Your task to perform on an android device: open app "The Home Depot" (install if not already installed), go to login, and select forgot password Image 0: 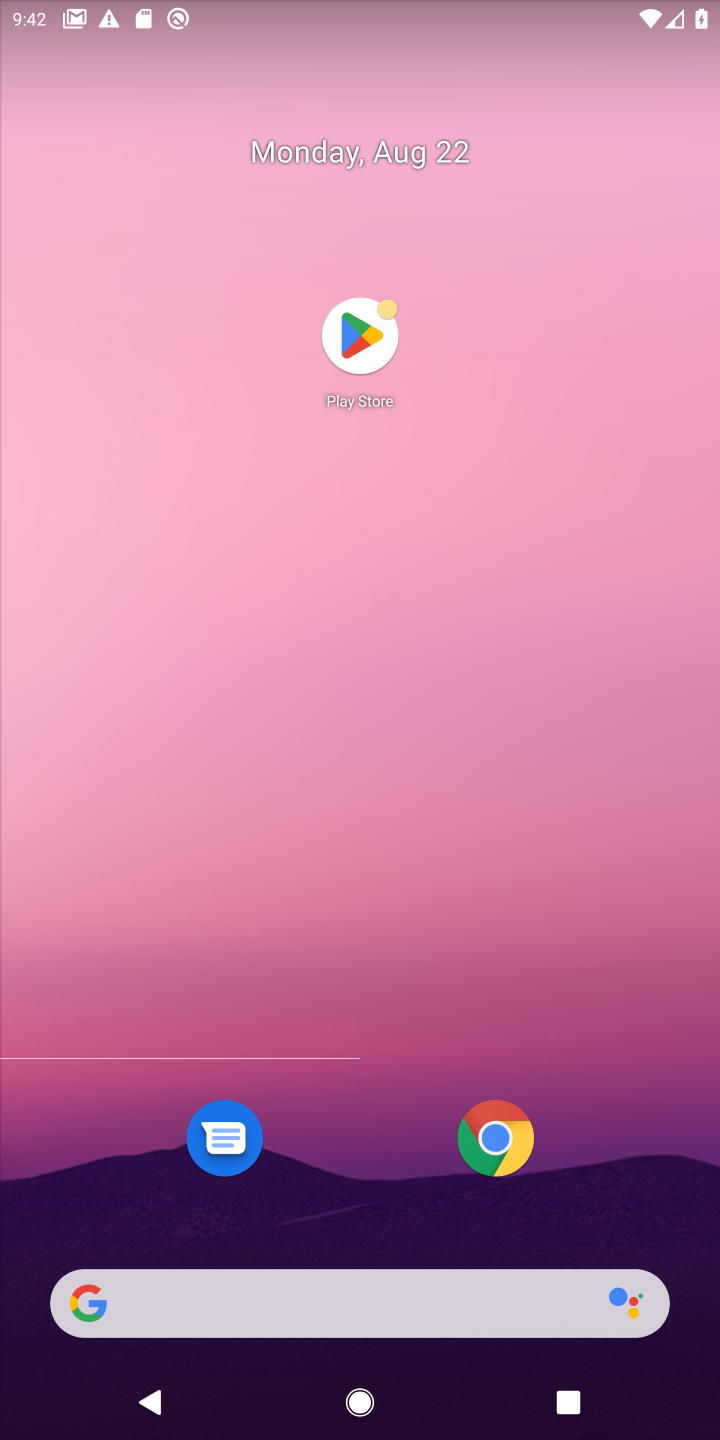
Step 0: drag from (334, 1246) to (500, 1347)
Your task to perform on an android device: open app "The Home Depot" (install if not already installed), go to login, and select forgot password Image 1: 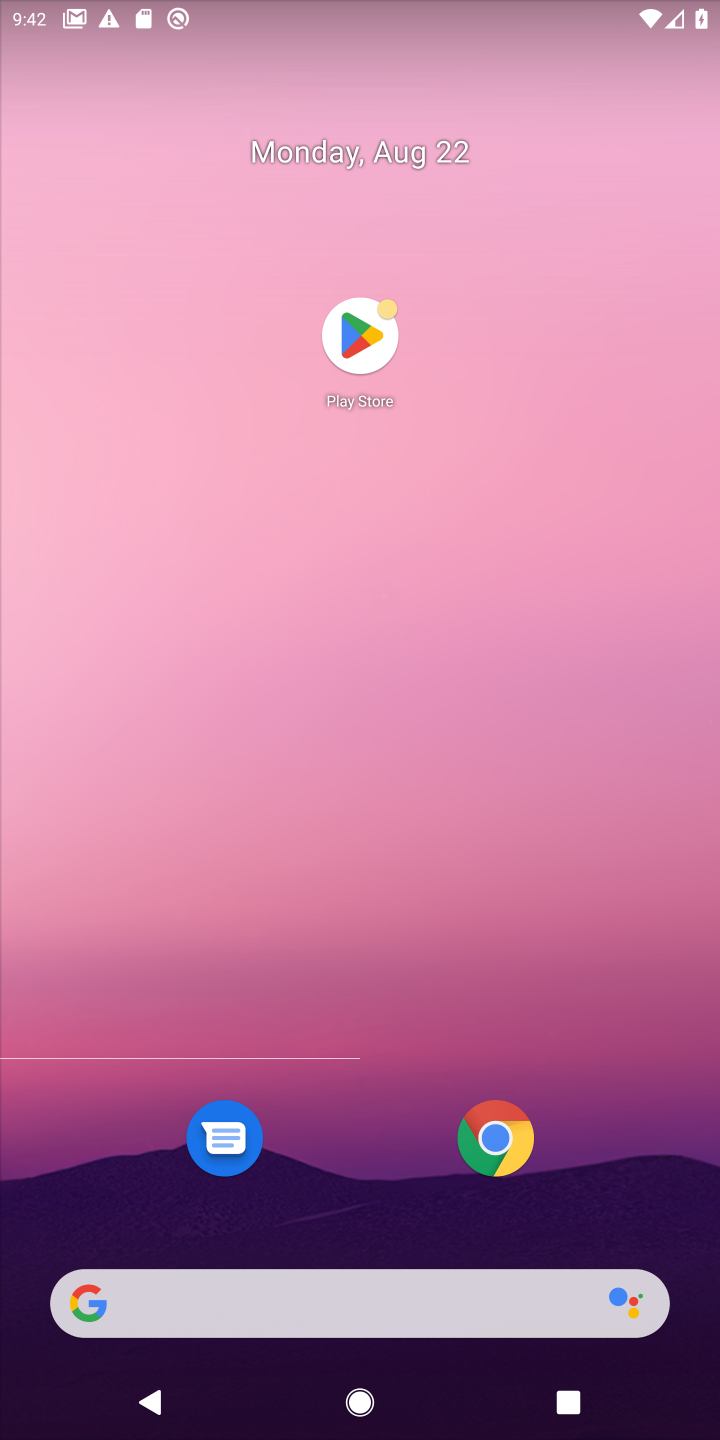
Step 1: click (362, 339)
Your task to perform on an android device: open app "The Home Depot" (install if not already installed), go to login, and select forgot password Image 2: 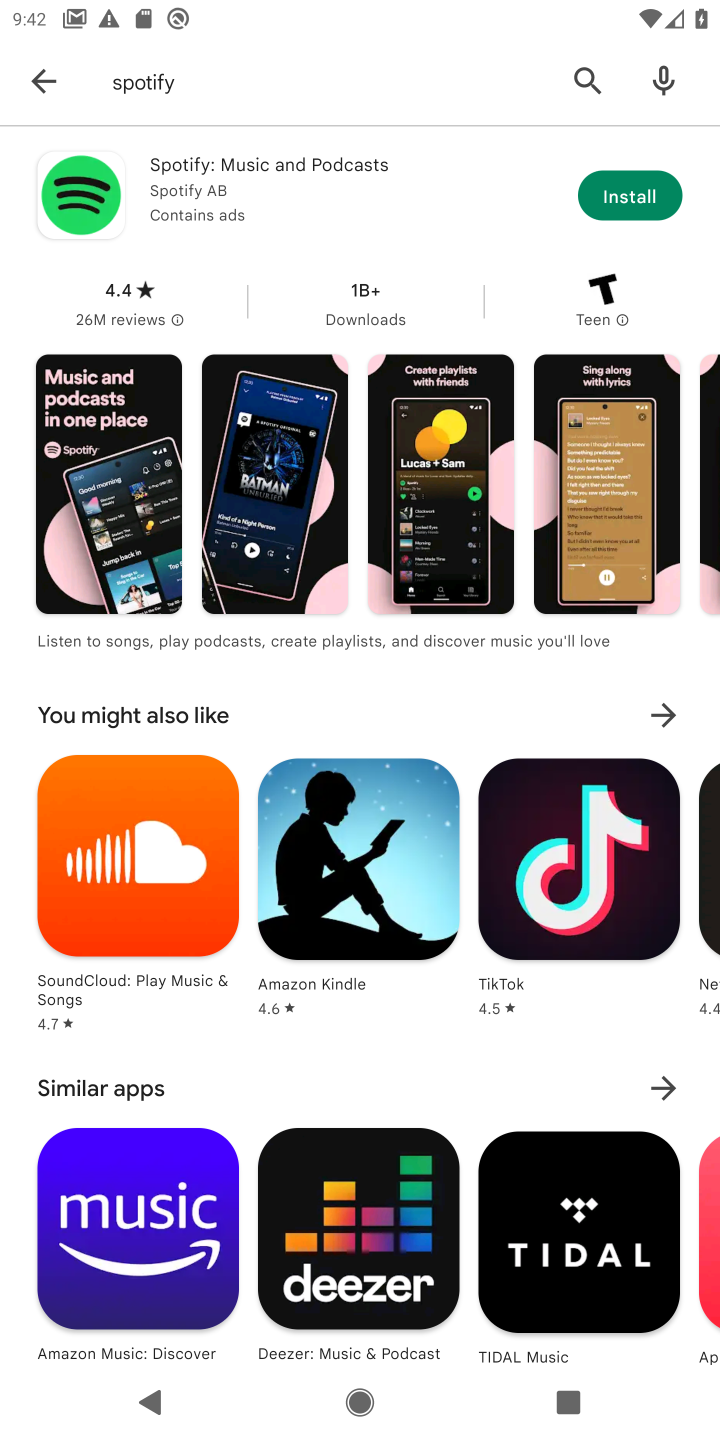
Step 2: click (614, 74)
Your task to perform on an android device: open app "The Home Depot" (install if not already installed), go to login, and select forgot password Image 3: 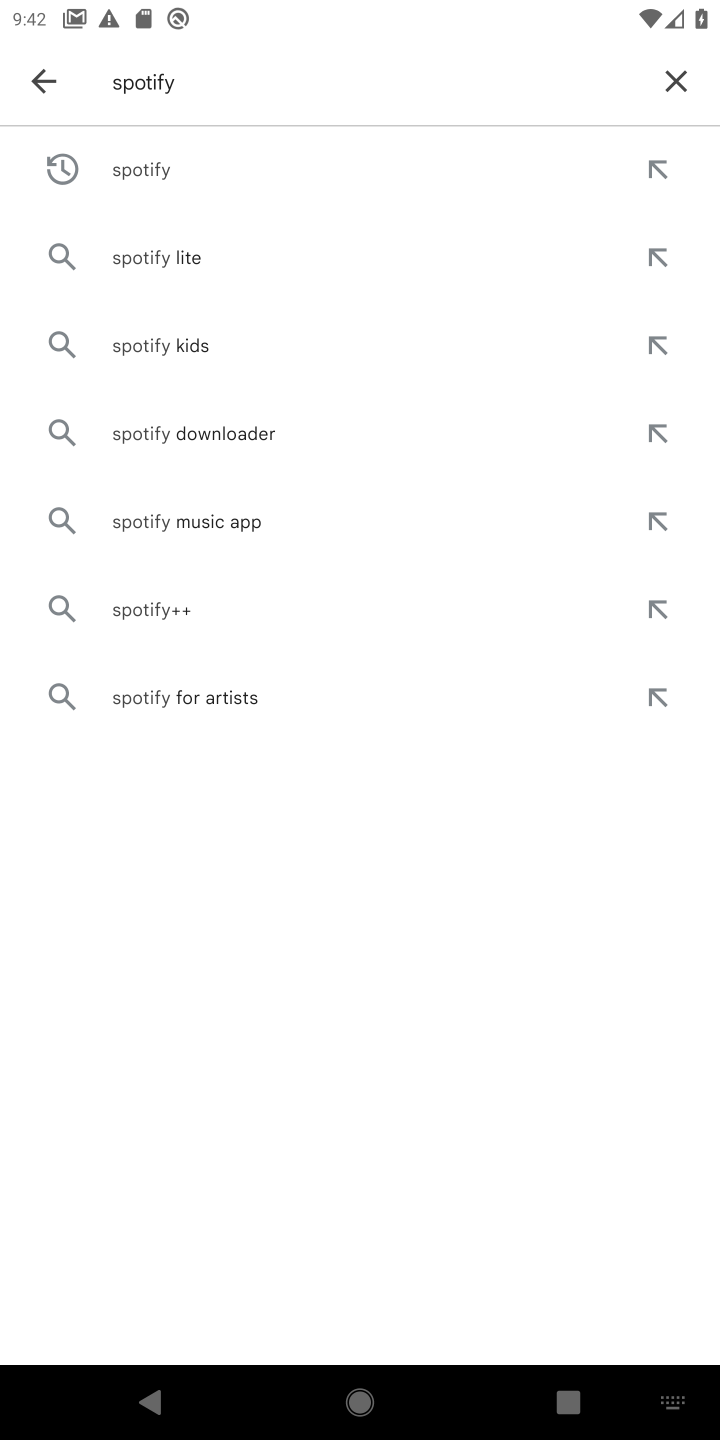
Step 3: click (670, 87)
Your task to perform on an android device: open app "The Home Depot" (install if not already installed), go to login, and select forgot password Image 4: 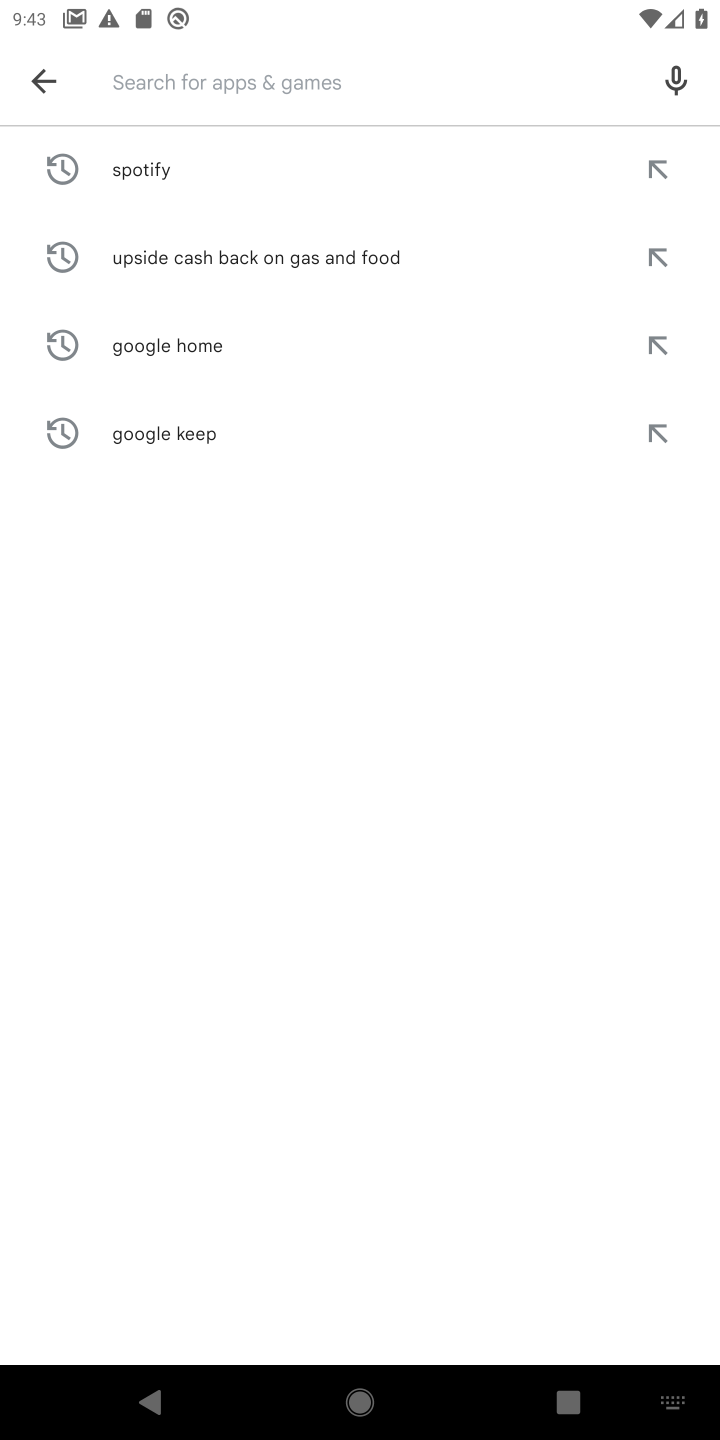
Step 4: type "home deposit"
Your task to perform on an android device: open app "The Home Depot" (install if not already installed), go to login, and select forgot password Image 5: 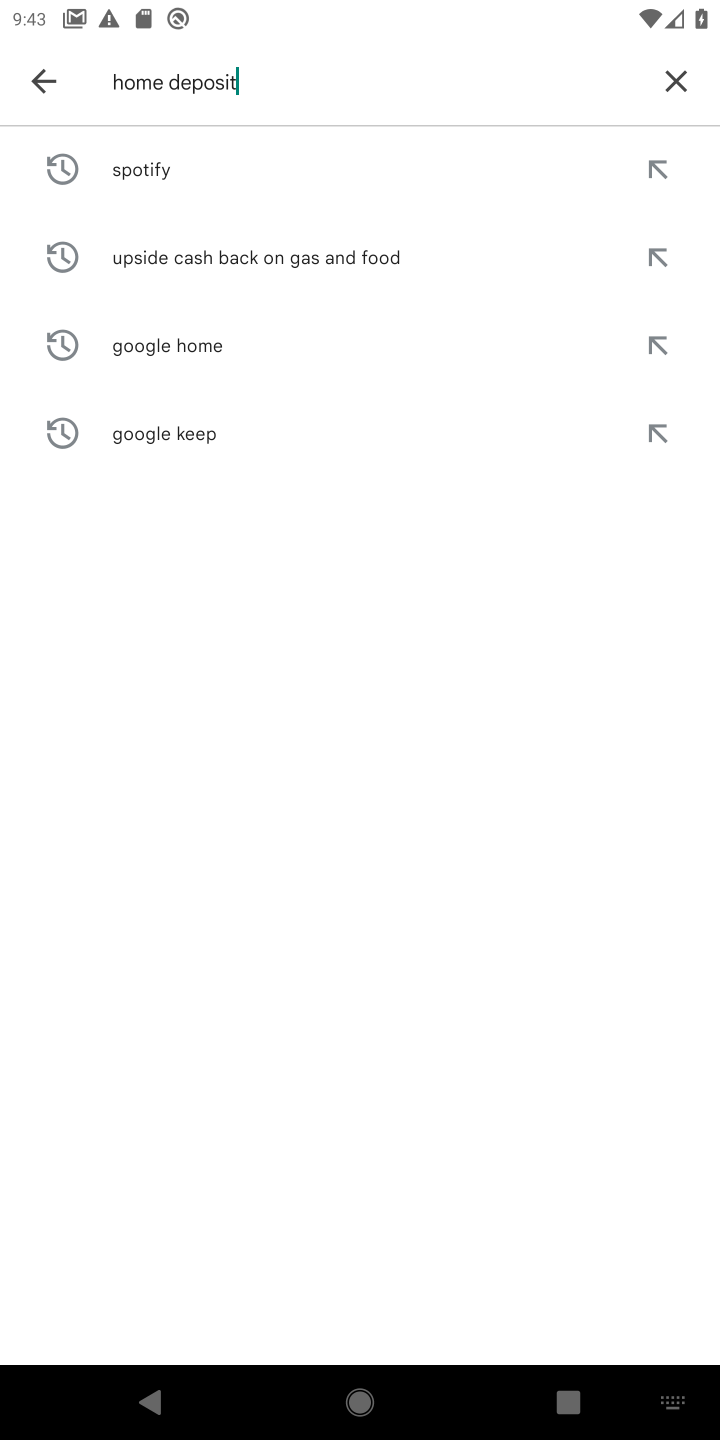
Step 5: type ""
Your task to perform on an android device: open app "The Home Depot" (install if not already installed), go to login, and select forgot password Image 6: 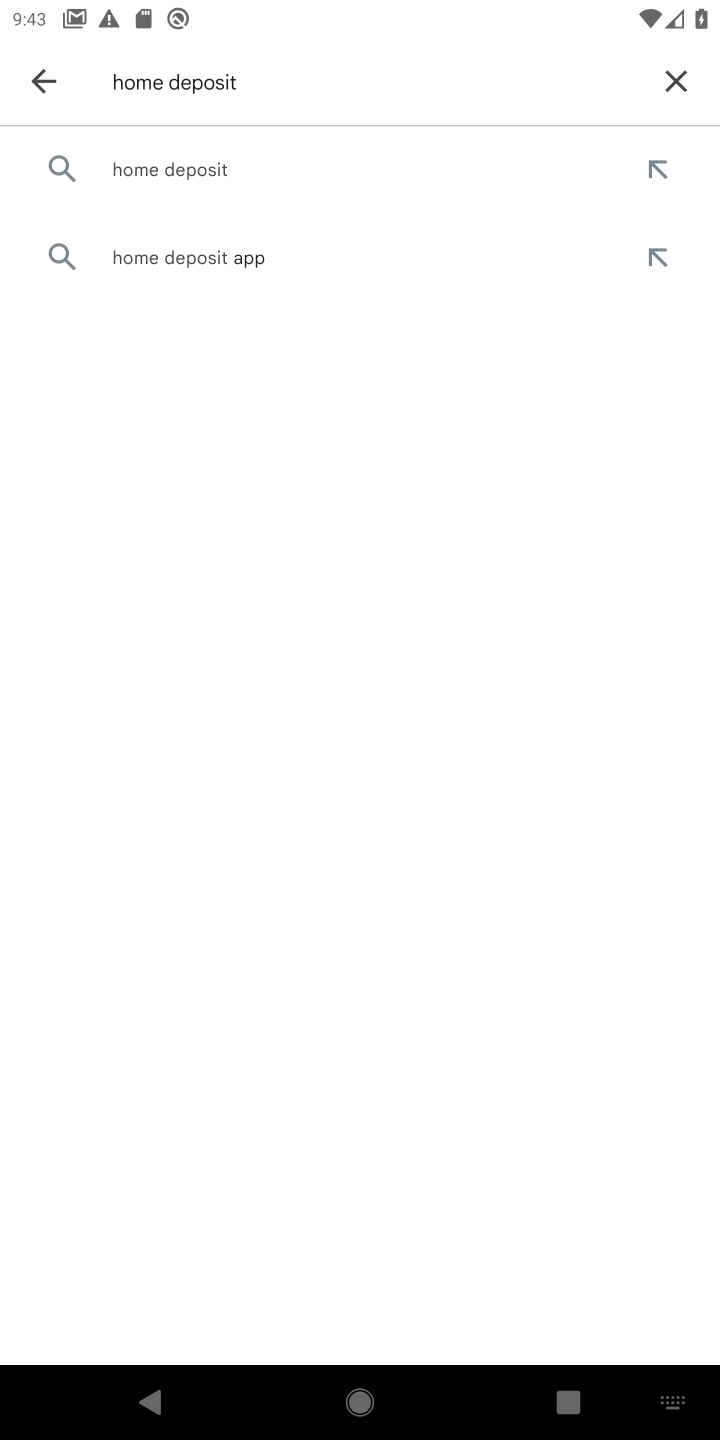
Step 6: click (246, 74)
Your task to perform on an android device: open app "The Home Depot" (install if not already installed), go to login, and select forgot password Image 7: 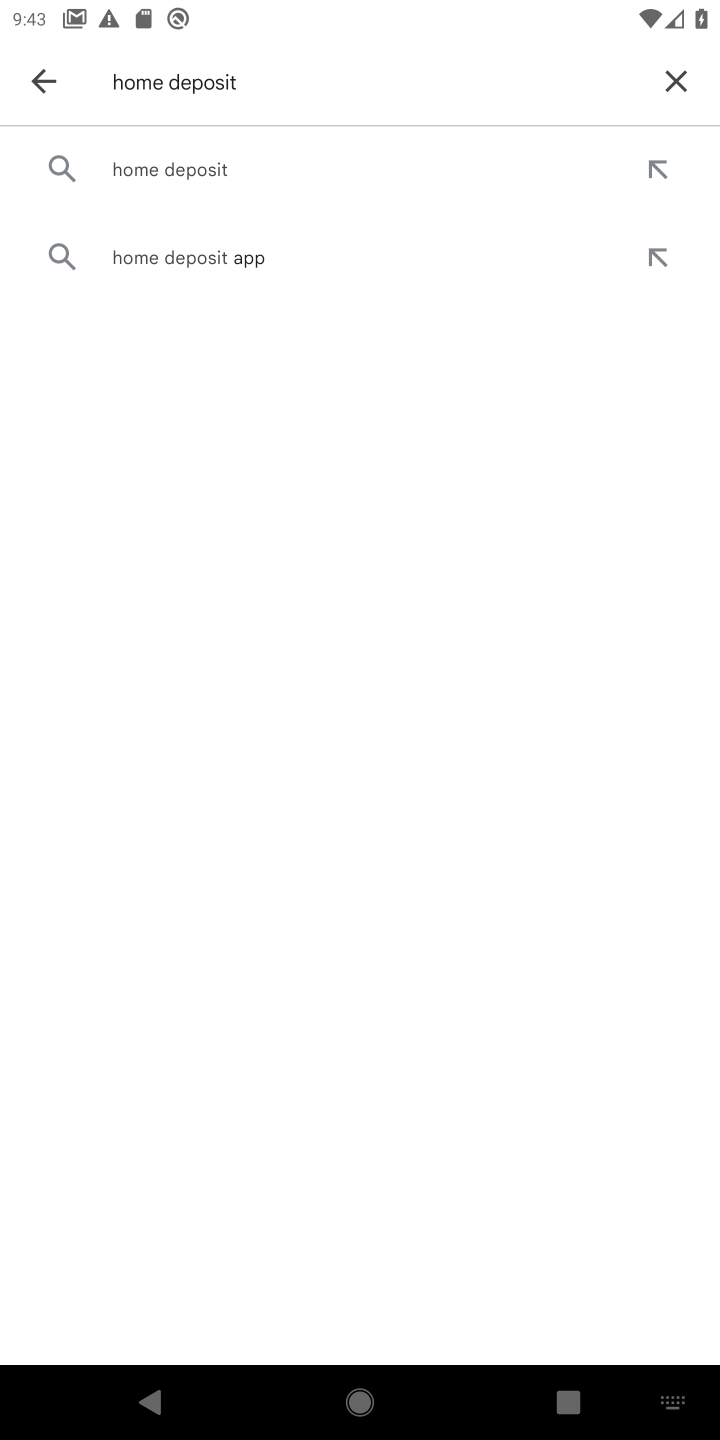
Step 7: click (192, 168)
Your task to perform on an android device: open app "The Home Depot" (install if not already installed), go to login, and select forgot password Image 8: 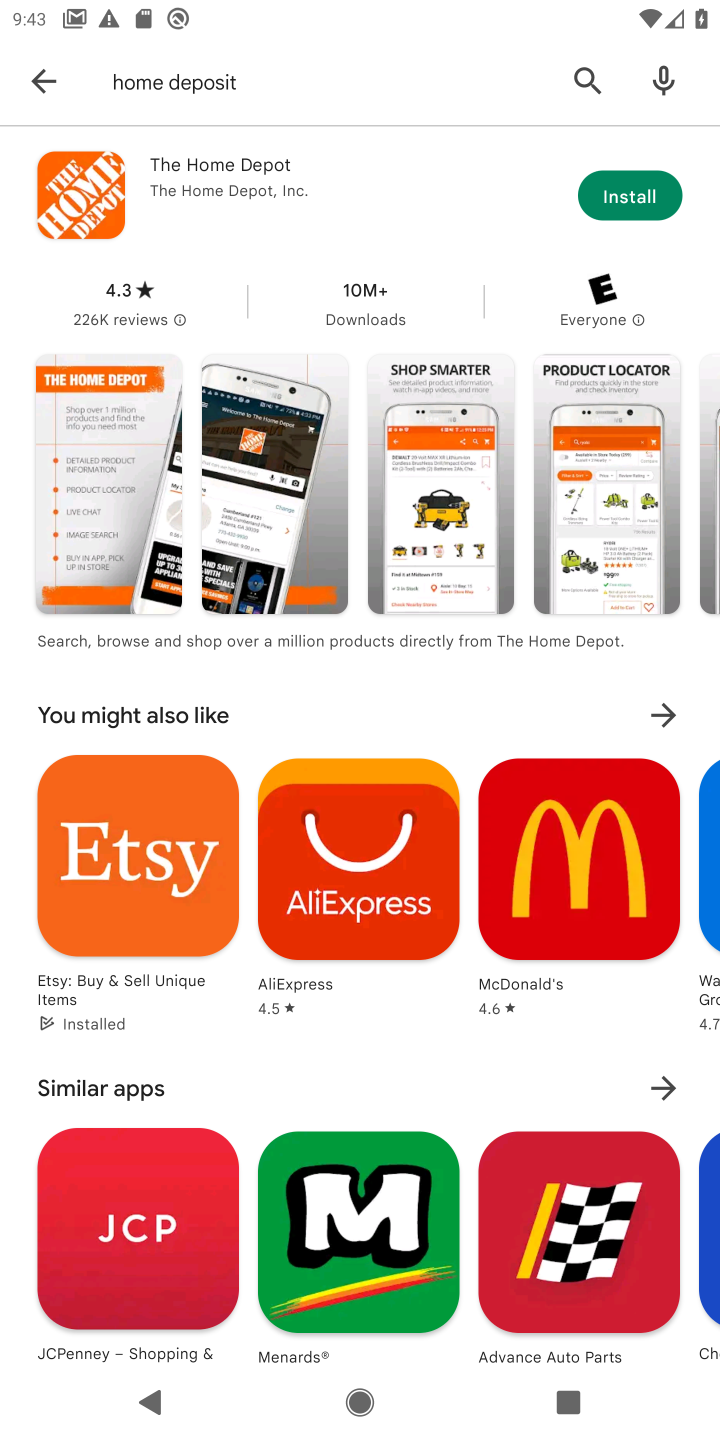
Step 8: click (628, 198)
Your task to perform on an android device: open app "The Home Depot" (install if not already installed), go to login, and select forgot password Image 9: 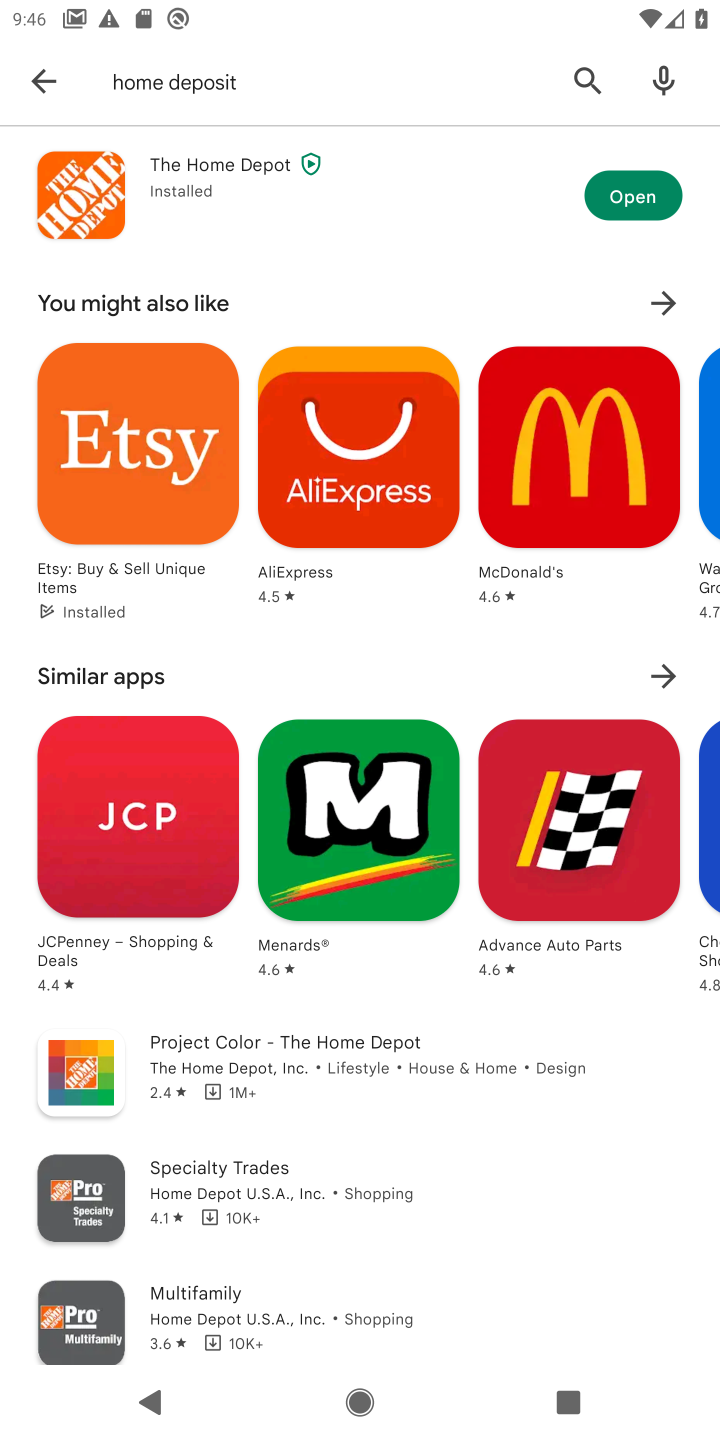
Step 9: click (647, 184)
Your task to perform on an android device: open app "The Home Depot" (install if not already installed), go to login, and select forgot password Image 10: 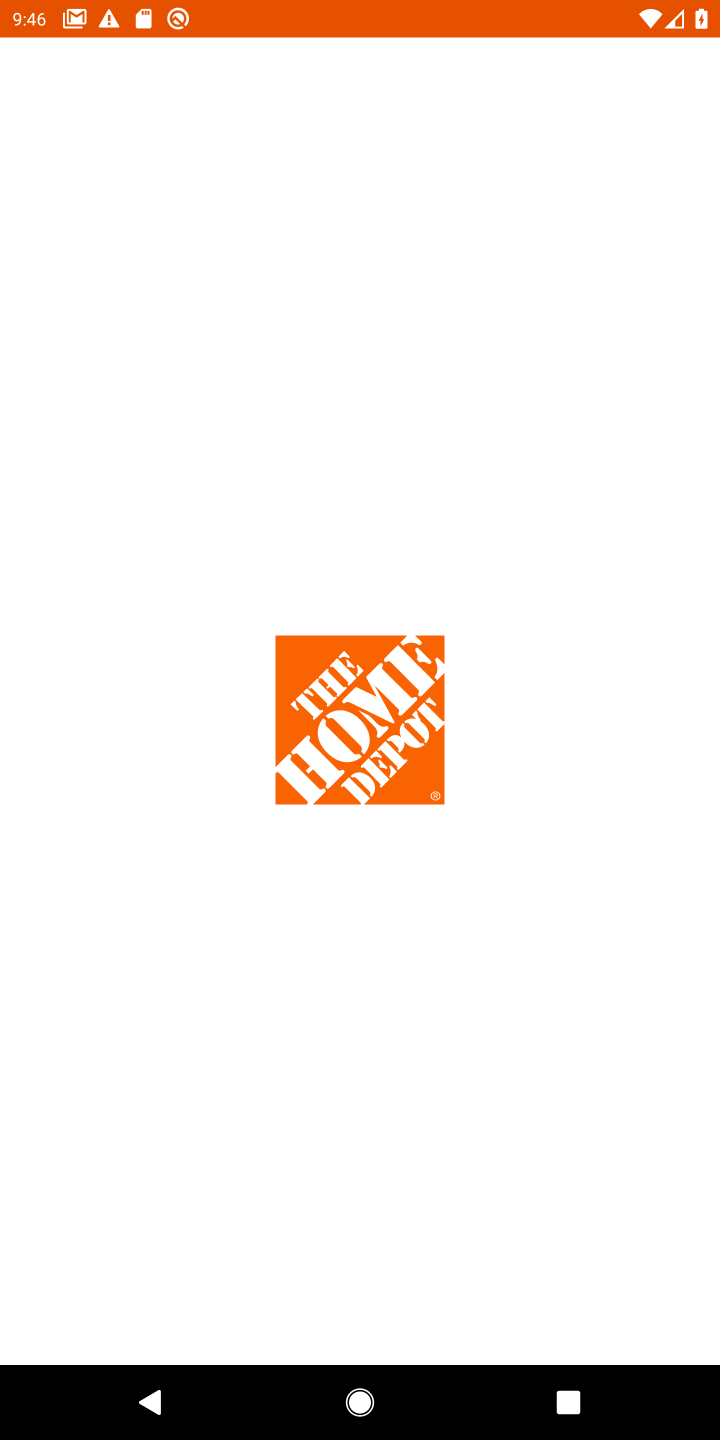
Step 10: task complete